Your task to perform on an android device: change alarm snooze length Image 0: 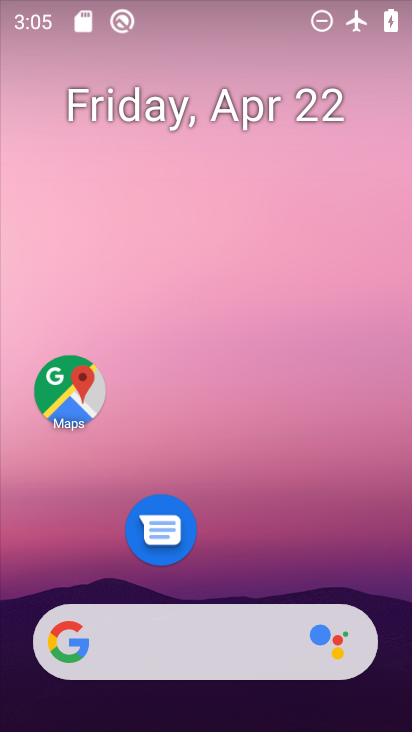
Step 0: drag from (247, 570) to (280, 115)
Your task to perform on an android device: change alarm snooze length Image 1: 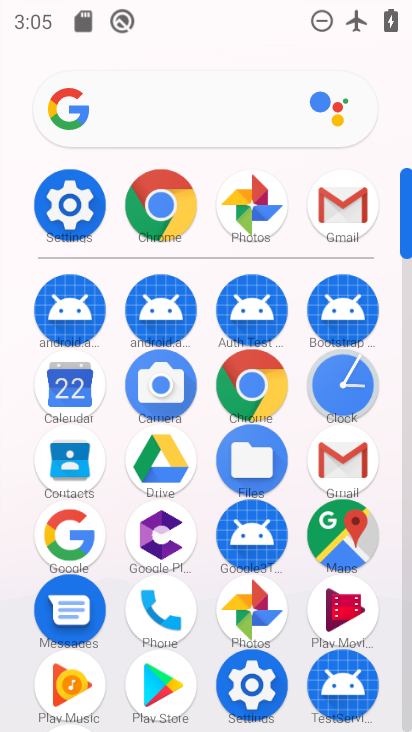
Step 1: click (333, 391)
Your task to perform on an android device: change alarm snooze length Image 2: 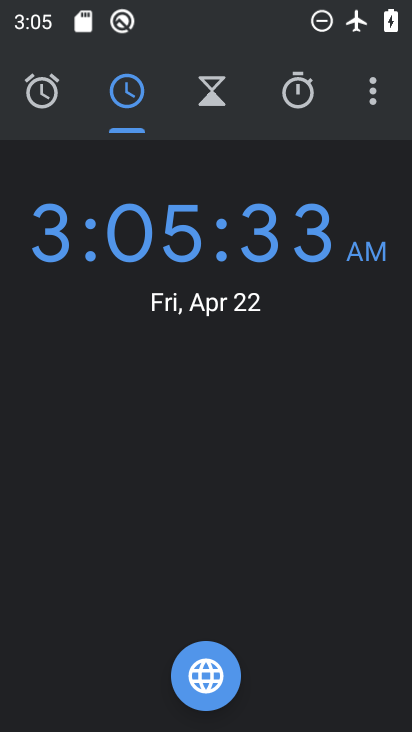
Step 2: click (372, 93)
Your task to perform on an android device: change alarm snooze length Image 3: 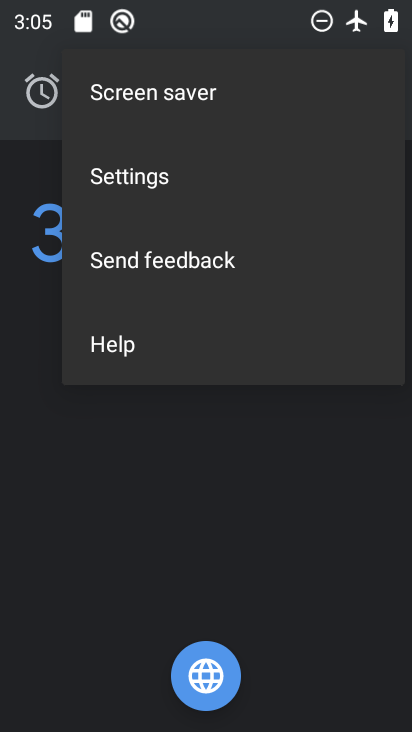
Step 3: click (143, 178)
Your task to perform on an android device: change alarm snooze length Image 4: 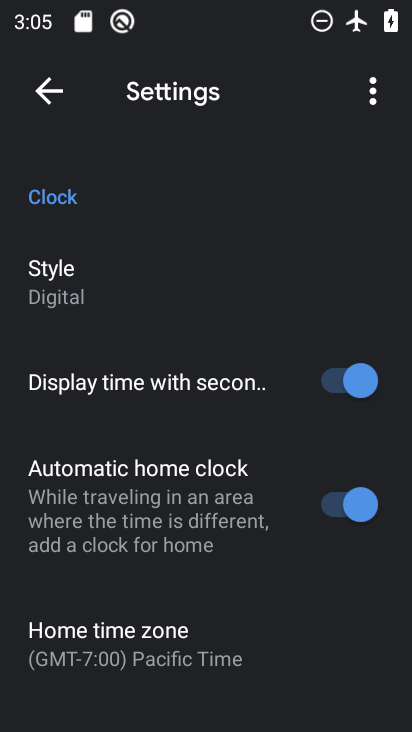
Step 4: drag from (179, 528) to (165, 199)
Your task to perform on an android device: change alarm snooze length Image 5: 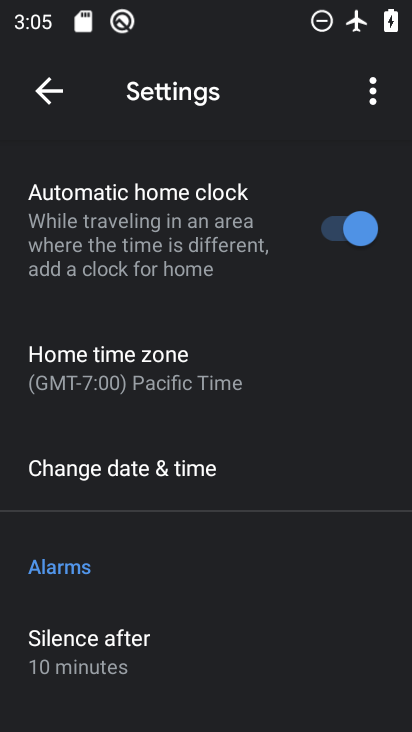
Step 5: drag from (164, 535) to (150, 184)
Your task to perform on an android device: change alarm snooze length Image 6: 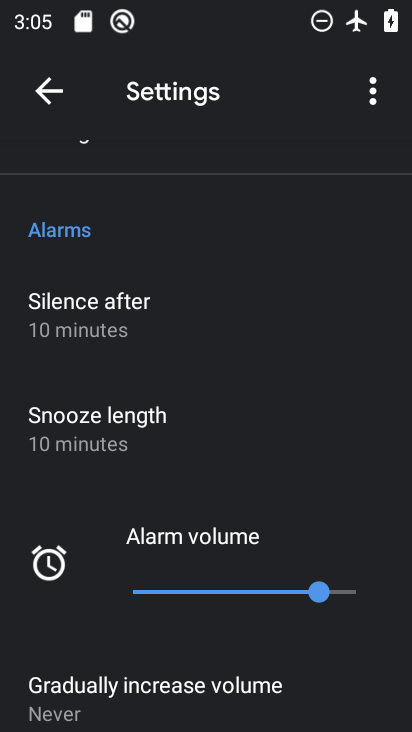
Step 6: click (108, 425)
Your task to perform on an android device: change alarm snooze length Image 7: 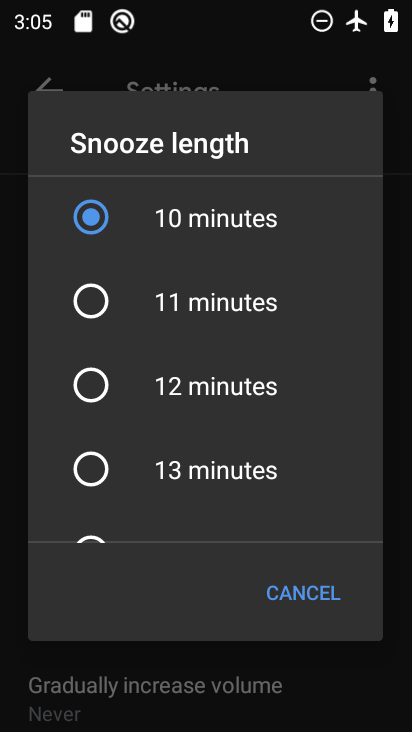
Step 7: click (79, 394)
Your task to perform on an android device: change alarm snooze length Image 8: 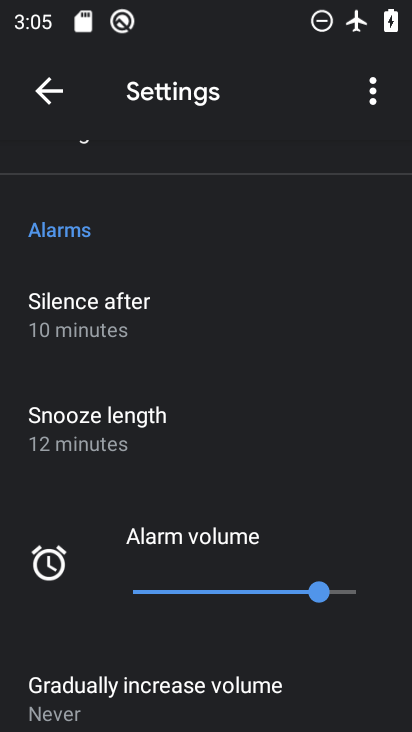
Step 8: task complete